Your task to perform on an android device: set the timer Image 0: 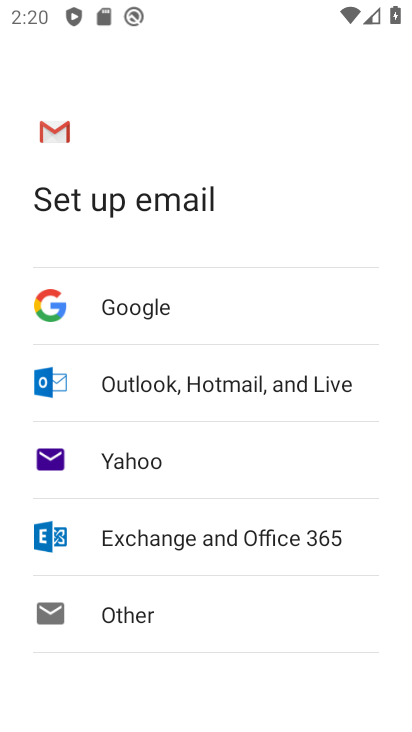
Step 0: press home button
Your task to perform on an android device: set the timer Image 1: 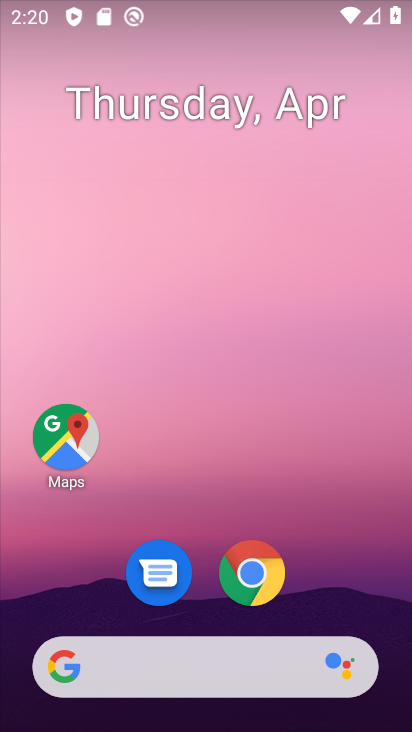
Step 1: drag from (342, 609) to (224, 112)
Your task to perform on an android device: set the timer Image 2: 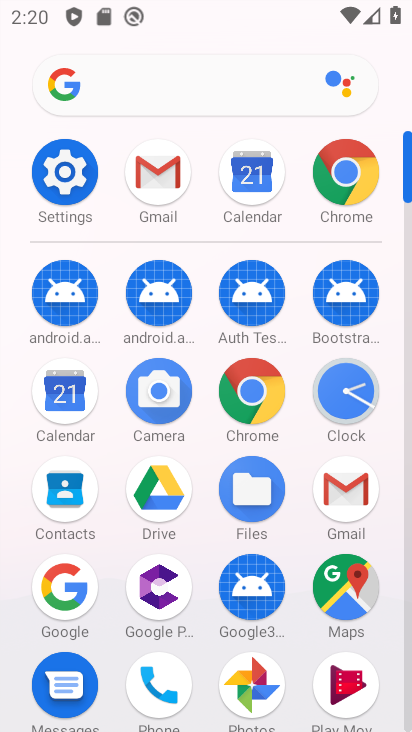
Step 2: click (325, 404)
Your task to perform on an android device: set the timer Image 3: 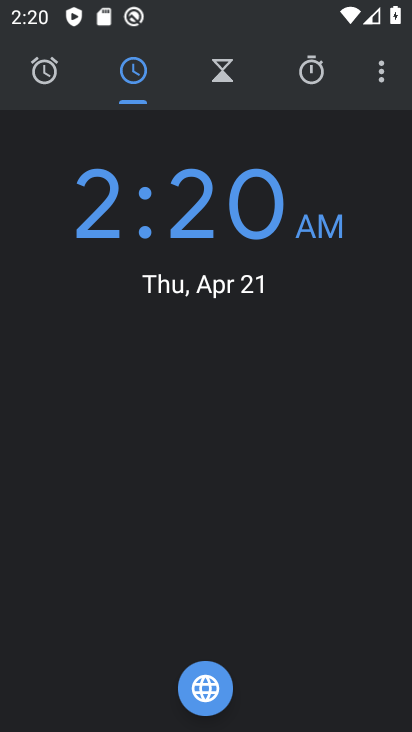
Step 3: click (383, 72)
Your task to perform on an android device: set the timer Image 4: 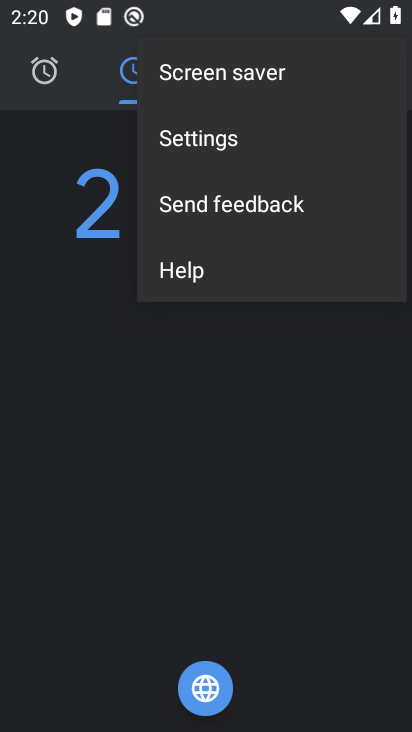
Step 4: click (278, 140)
Your task to perform on an android device: set the timer Image 5: 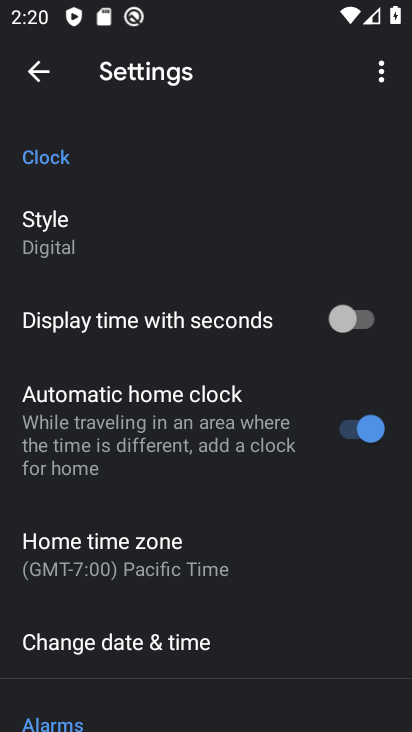
Step 5: click (185, 640)
Your task to perform on an android device: set the timer Image 6: 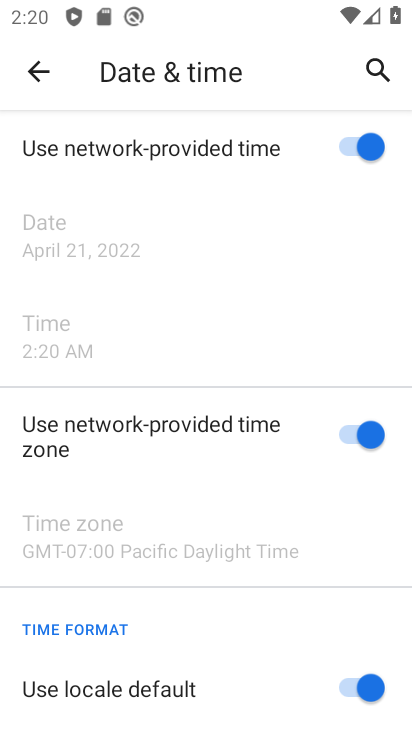
Step 6: task complete